Your task to perform on an android device: Open settings Image 0: 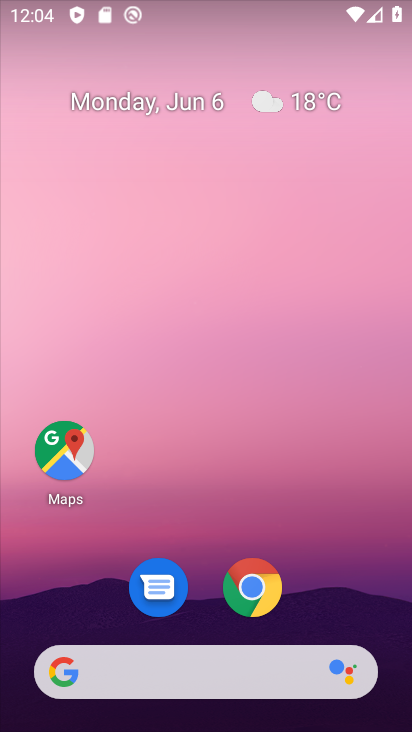
Step 0: drag from (384, 595) to (308, 120)
Your task to perform on an android device: Open settings Image 1: 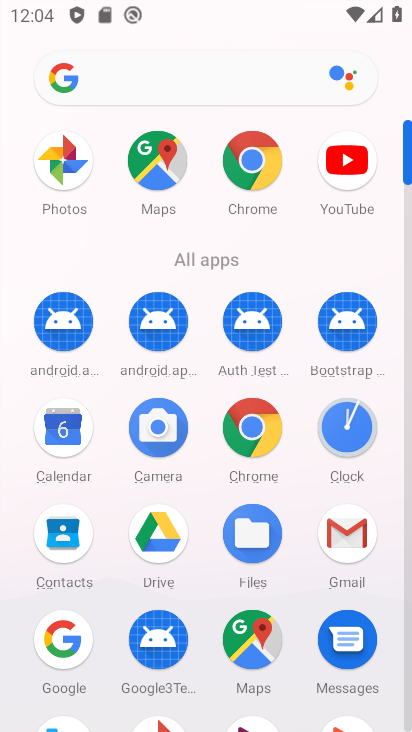
Step 1: drag from (154, 593) to (189, 188)
Your task to perform on an android device: Open settings Image 2: 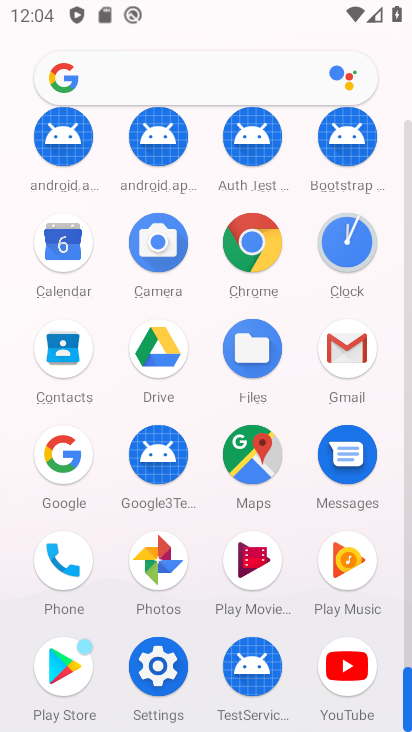
Step 2: click (135, 677)
Your task to perform on an android device: Open settings Image 3: 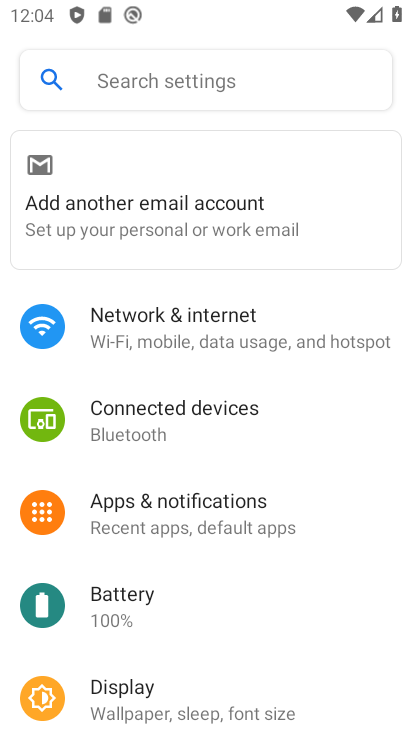
Step 3: task complete